Your task to perform on an android device: See recent photos Image 0: 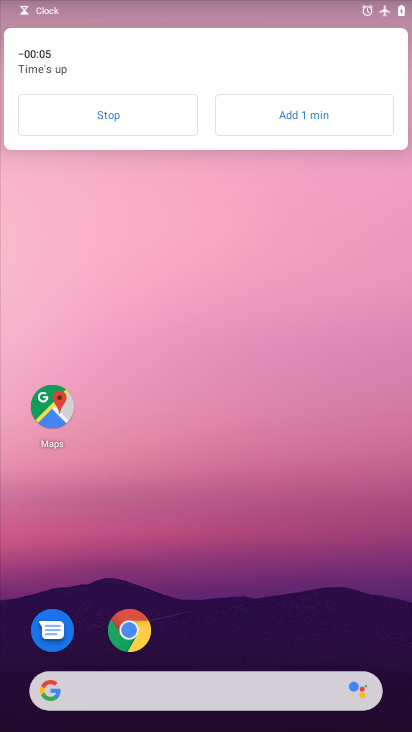
Step 0: click (115, 106)
Your task to perform on an android device: See recent photos Image 1: 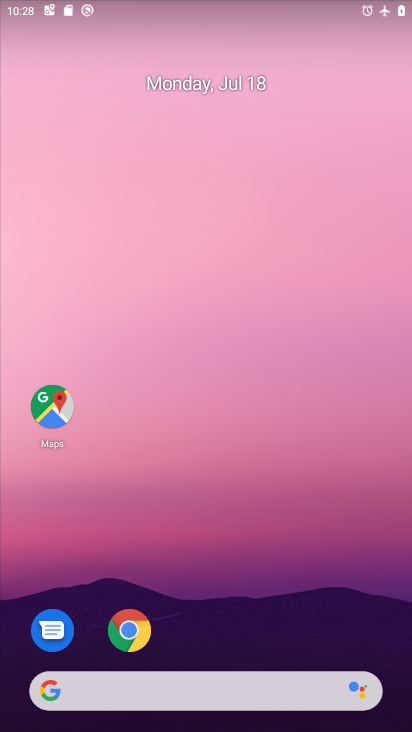
Step 1: drag from (218, 609) to (225, 194)
Your task to perform on an android device: See recent photos Image 2: 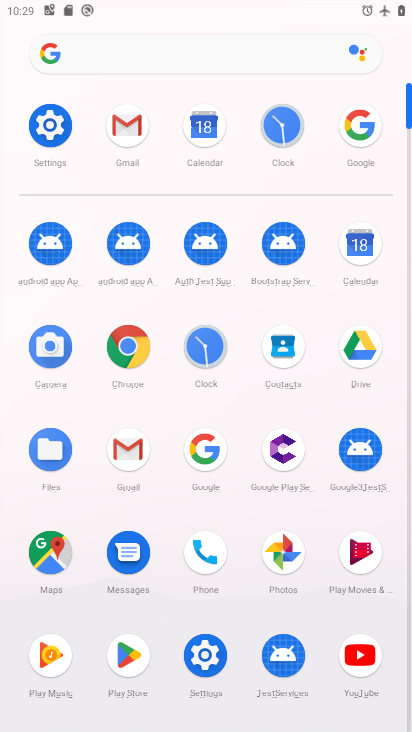
Step 2: click (268, 560)
Your task to perform on an android device: See recent photos Image 3: 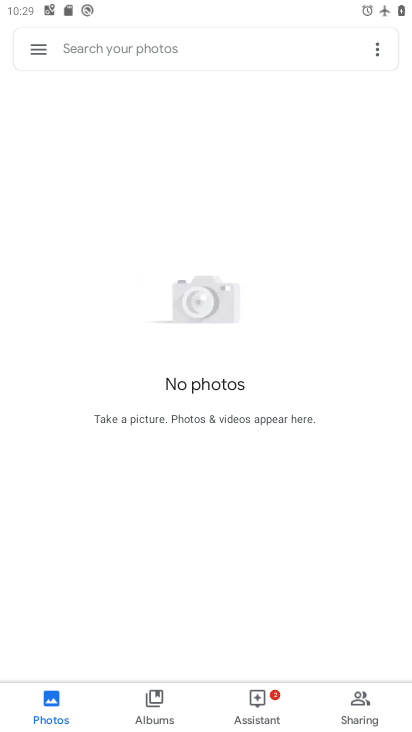
Step 3: task complete